Your task to perform on an android device: Search for vegetarian restaurants on Maps Image 0: 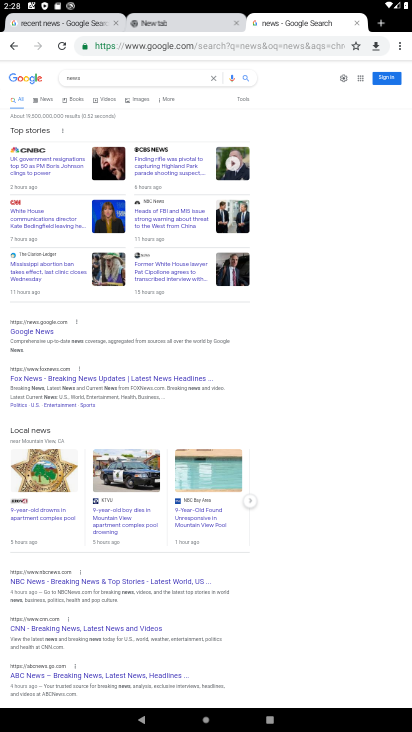
Step 0: press home button
Your task to perform on an android device: Search for vegetarian restaurants on Maps Image 1: 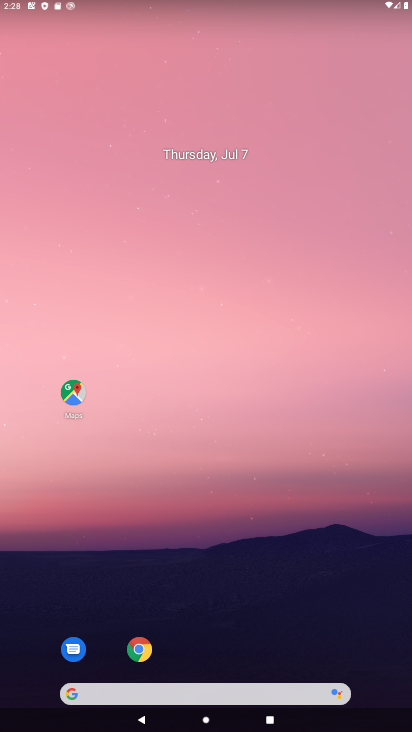
Step 1: drag from (189, 688) to (250, 68)
Your task to perform on an android device: Search for vegetarian restaurants on Maps Image 2: 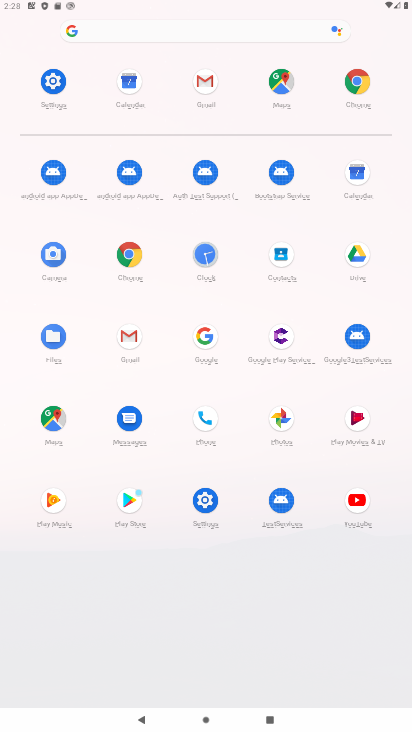
Step 2: click (61, 424)
Your task to perform on an android device: Search for vegetarian restaurants on Maps Image 3: 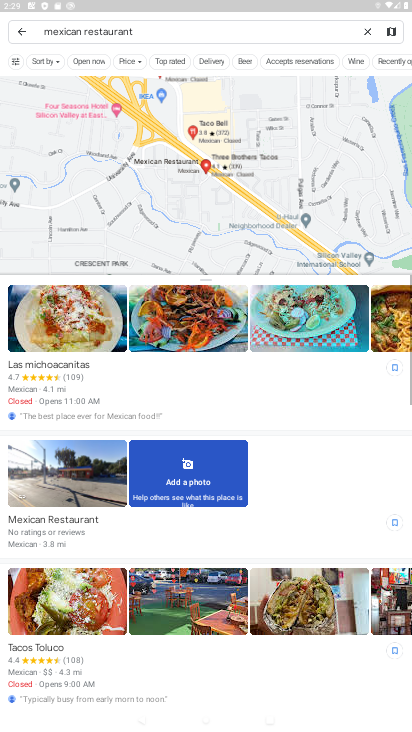
Step 3: click (368, 29)
Your task to perform on an android device: Search for vegetarian restaurants on Maps Image 4: 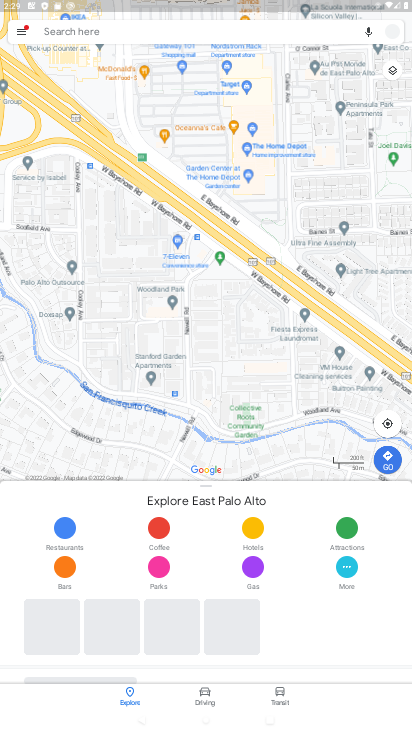
Step 4: click (154, 41)
Your task to perform on an android device: Search for vegetarian restaurants on Maps Image 5: 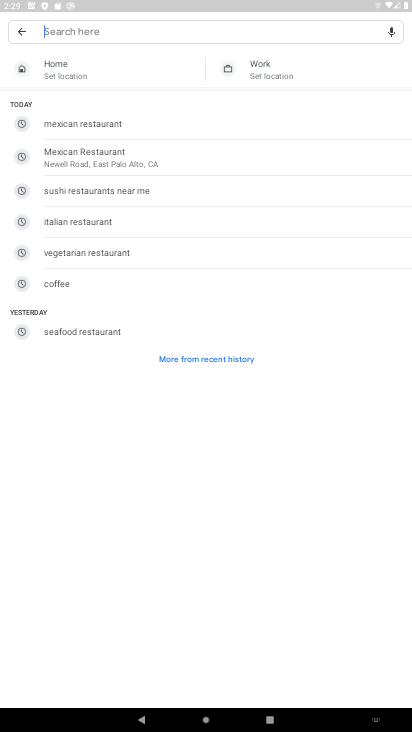
Step 5: click (111, 259)
Your task to perform on an android device: Search for vegetarian restaurants on Maps Image 6: 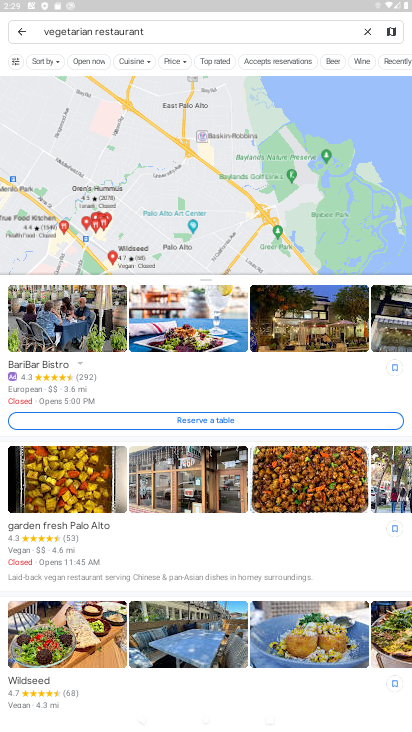
Step 6: task complete